Your task to perform on an android device: open app "YouTube Kids" Image 0: 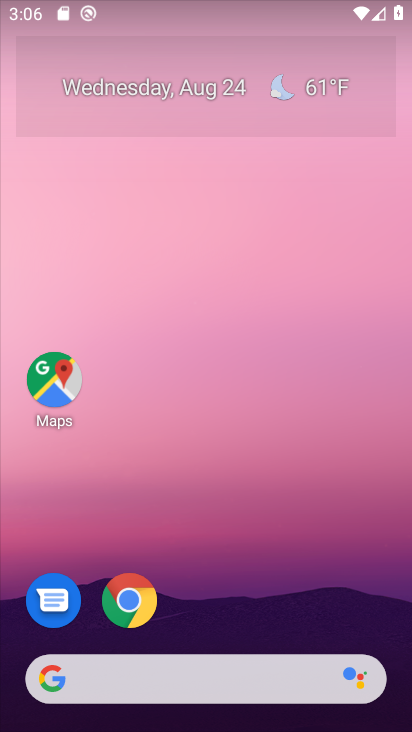
Step 0: click (289, 114)
Your task to perform on an android device: open app "YouTube Kids" Image 1: 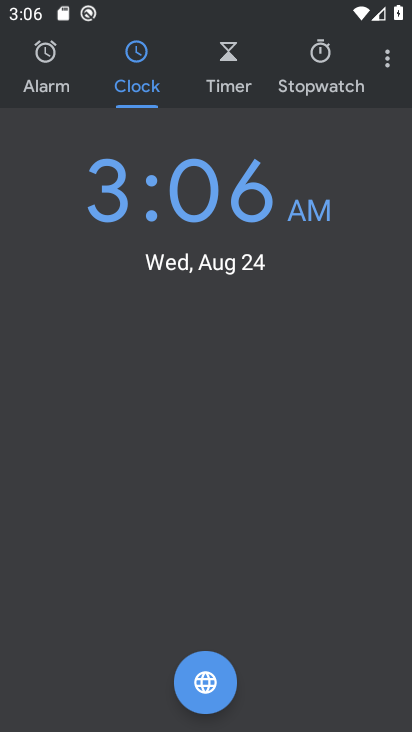
Step 1: press home button
Your task to perform on an android device: open app "YouTube Kids" Image 2: 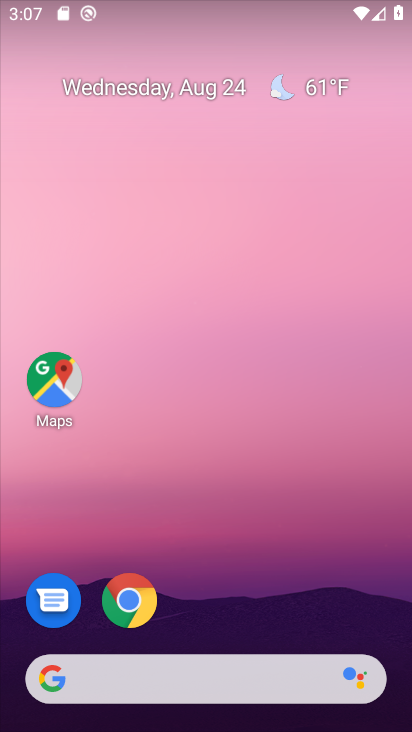
Step 2: drag from (230, 631) to (319, 49)
Your task to perform on an android device: open app "YouTube Kids" Image 3: 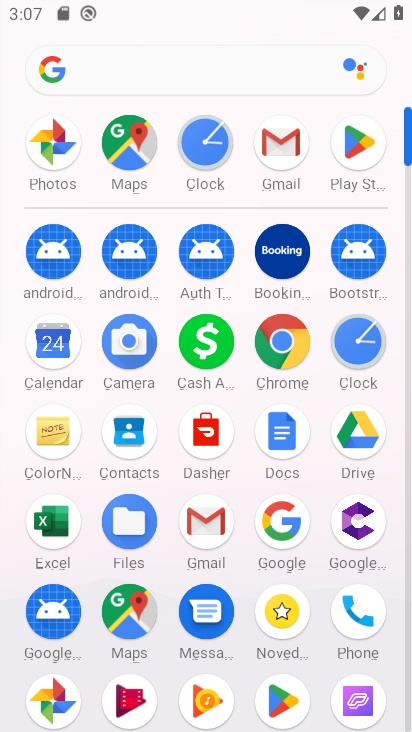
Step 3: click (349, 145)
Your task to perform on an android device: open app "YouTube Kids" Image 4: 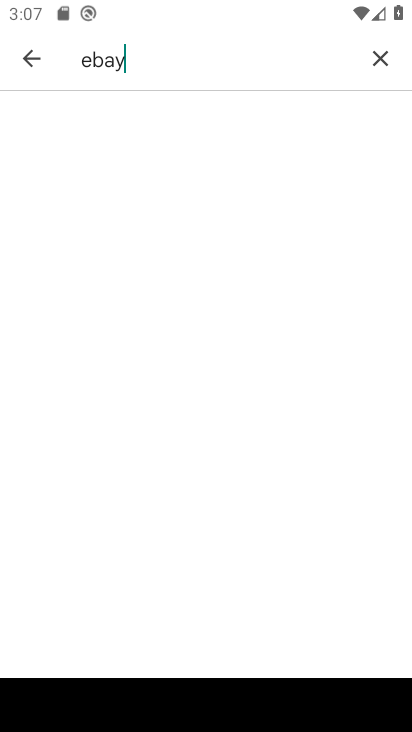
Step 4: click (391, 56)
Your task to perform on an android device: open app "YouTube Kids" Image 5: 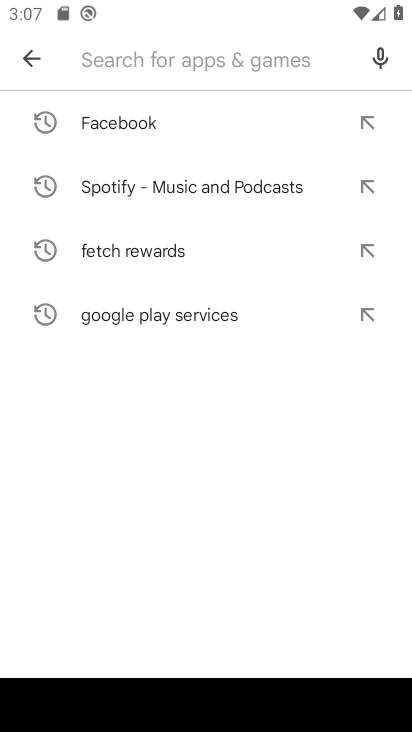
Step 5: click (26, 46)
Your task to perform on an android device: open app "YouTube Kids" Image 6: 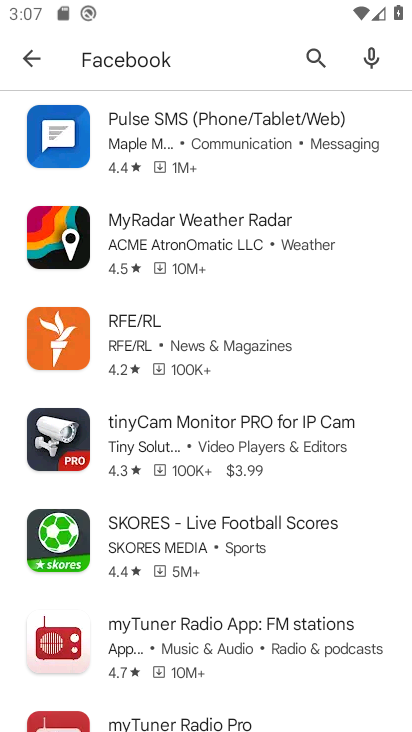
Step 6: click (23, 49)
Your task to perform on an android device: open app "YouTube Kids" Image 7: 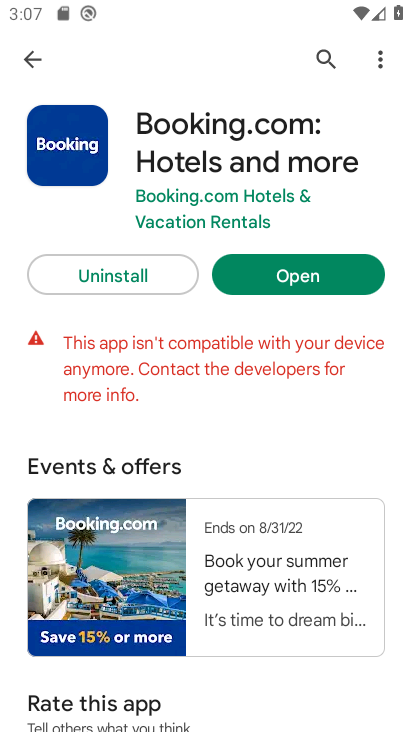
Step 7: click (38, 65)
Your task to perform on an android device: open app "YouTube Kids" Image 8: 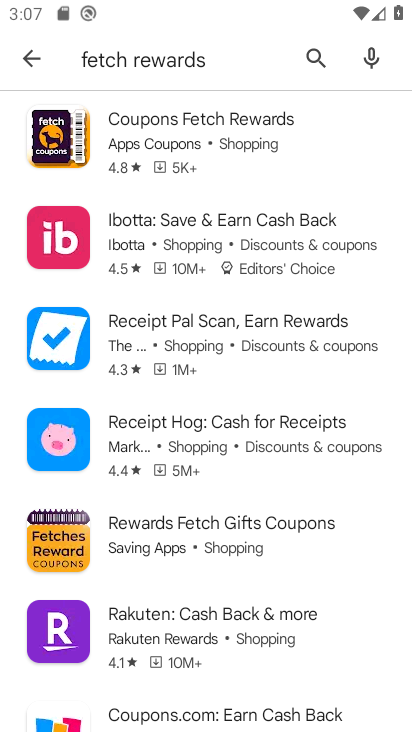
Step 8: click (26, 51)
Your task to perform on an android device: open app "YouTube Kids" Image 9: 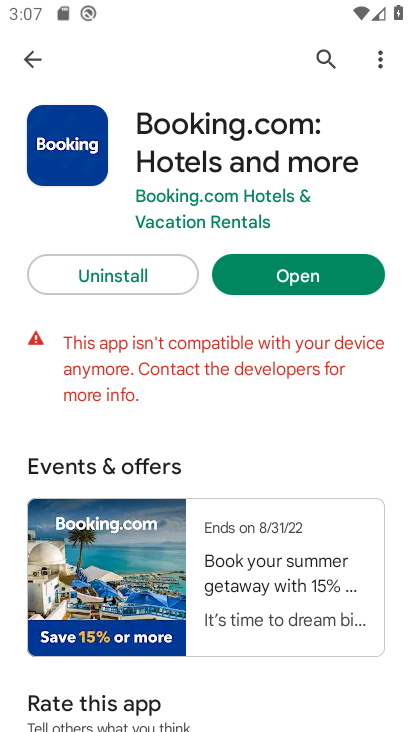
Step 9: click (26, 51)
Your task to perform on an android device: open app "YouTube Kids" Image 10: 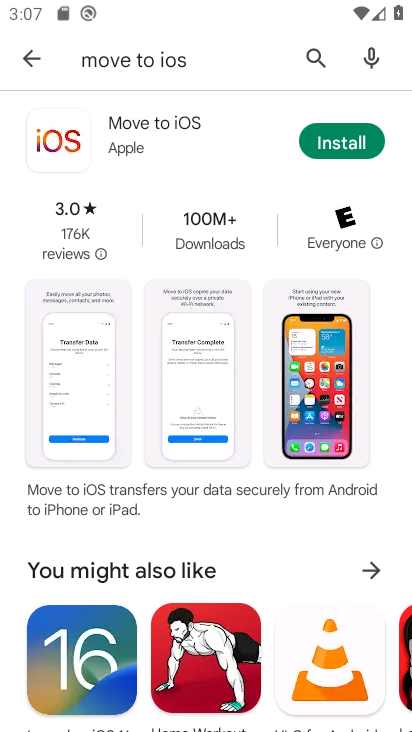
Step 10: click (33, 53)
Your task to perform on an android device: open app "YouTube Kids" Image 11: 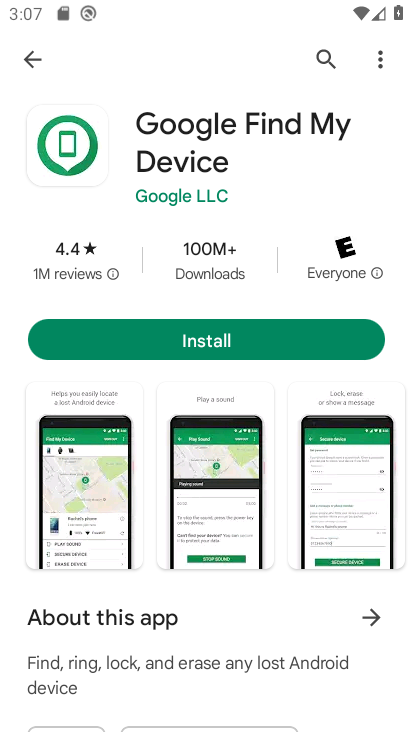
Step 11: click (33, 53)
Your task to perform on an android device: open app "YouTube Kids" Image 12: 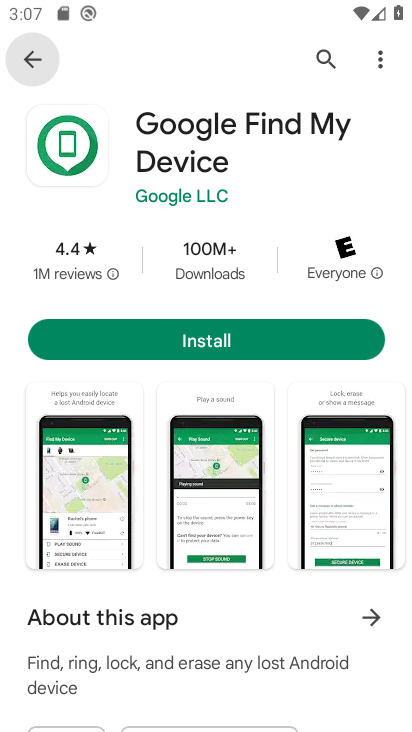
Step 12: click (33, 53)
Your task to perform on an android device: open app "YouTube Kids" Image 13: 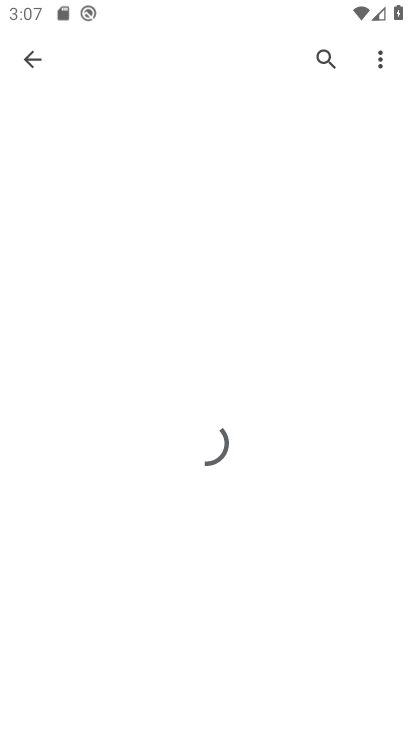
Step 13: click (33, 53)
Your task to perform on an android device: open app "YouTube Kids" Image 14: 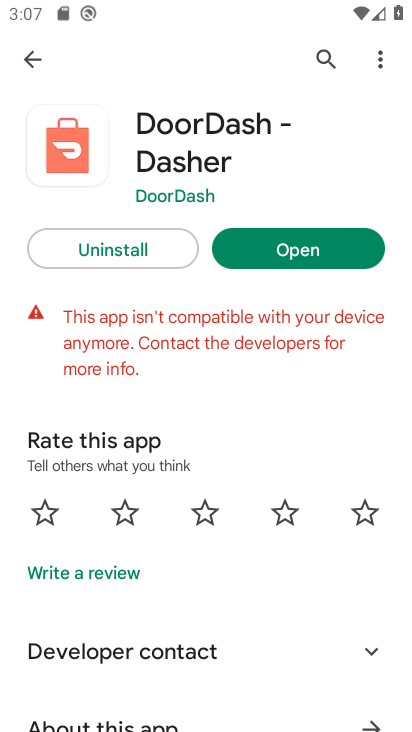
Step 14: click (33, 53)
Your task to perform on an android device: open app "YouTube Kids" Image 15: 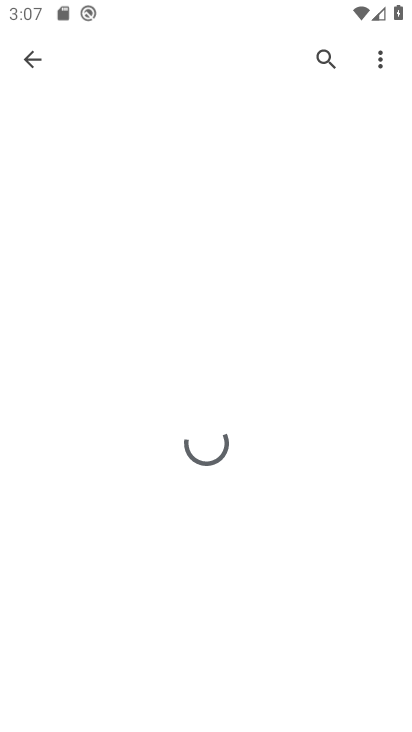
Step 15: click (33, 53)
Your task to perform on an android device: open app "YouTube Kids" Image 16: 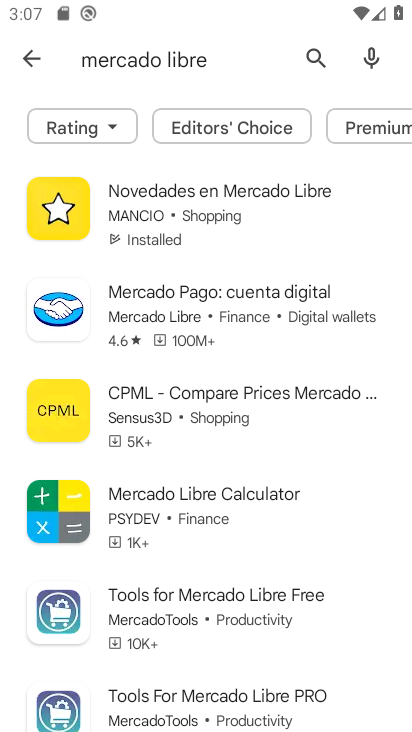
Step 16: click (33, 53)
Your task to perform on an android device: open app "YouTube Kids" Image 17: 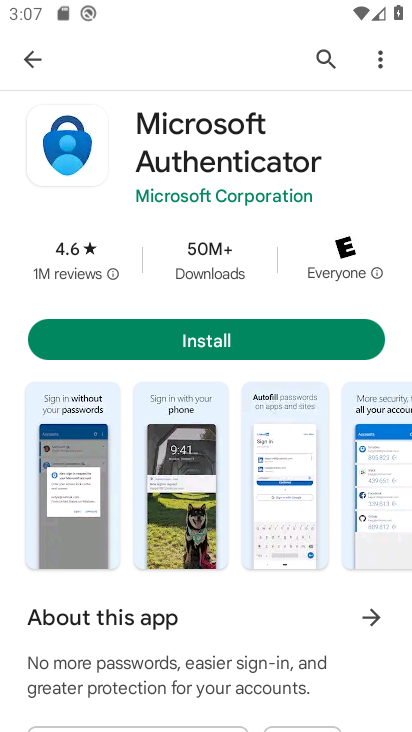
Step 17: click (33, 53)
Your task to perform on an android device: open app "YouTube Kids" Image 18: 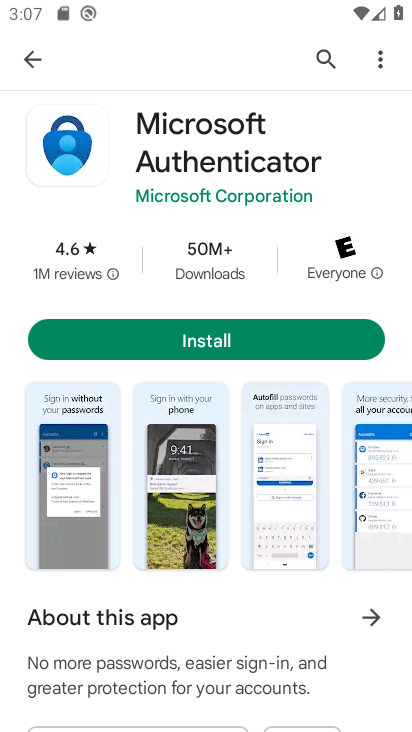
Step 18: click (33, 53)
Your task to perform on an android device: open app "YouTube Kids" Image 19: 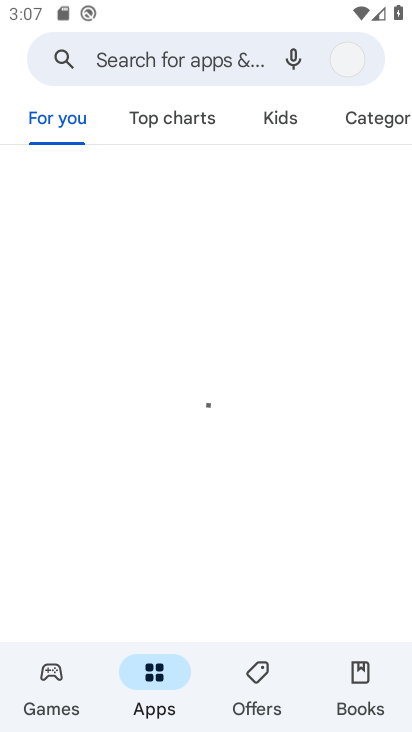
Step 19: click (33, 53)
Your task to perform on an android device: open app "YouTube Kids" Image 20: 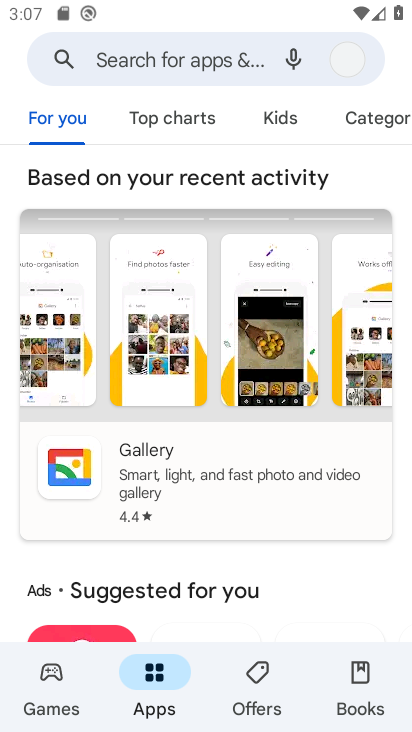
Step 20: click (33, 53)
Your task to perform on an android device: open app "YouTube Kids" Image 21: 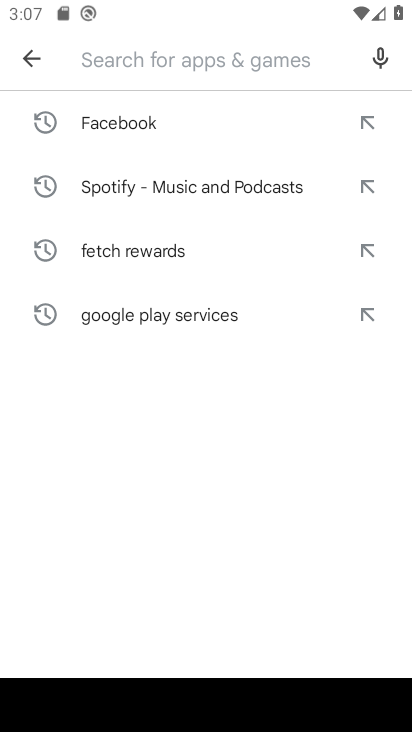
Step 21: click (29, 68)
Your task to perform on an android device: open app "YouTube Kids" Image 22: 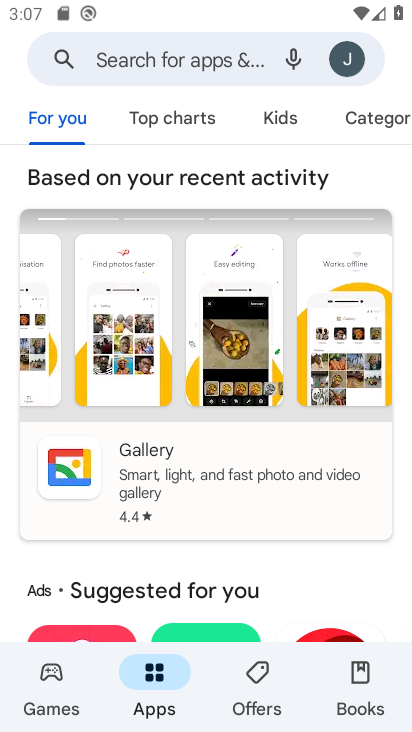
Step 22: click (139, 681)
Your task to perform on an android device: open app "YouTube Kids" Image 23: 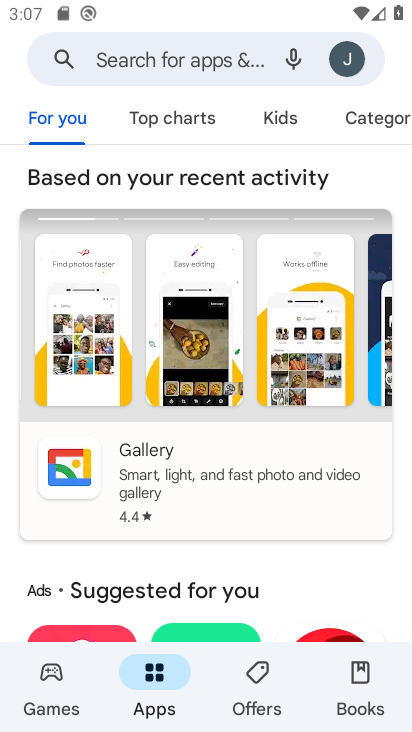
Step 23: click (340, 58)
Your task to perform on an android device: open app "YouTube Kids" Image 24: 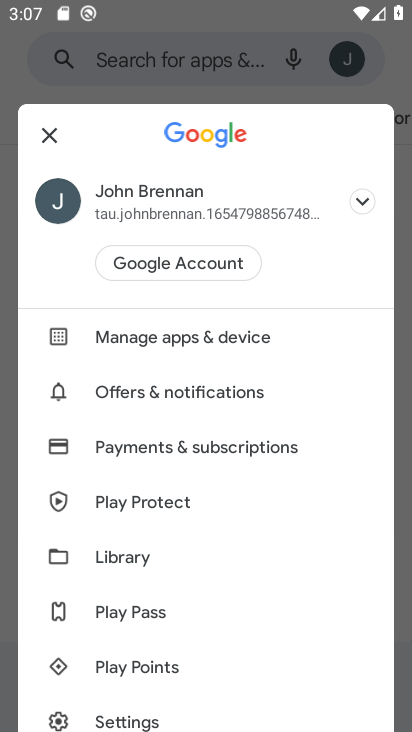
Step 24: click (358, 205)
Your task to perform on an android device: open app "YouTube Kids" Image 25: 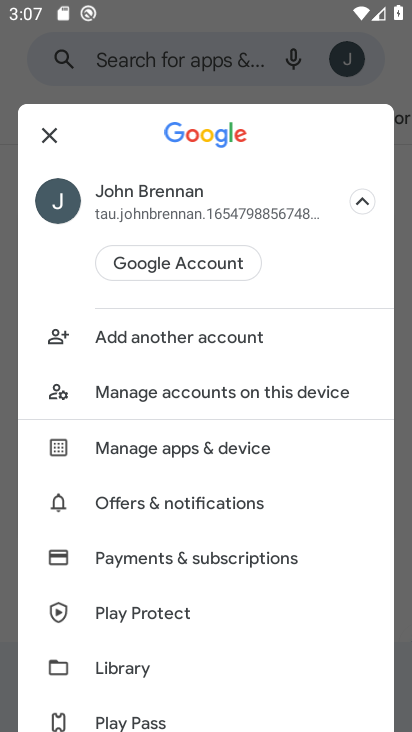
Step 25: click (167, 453)
Your task to perform on an android device: open app "YouTube Kids" Image 26: 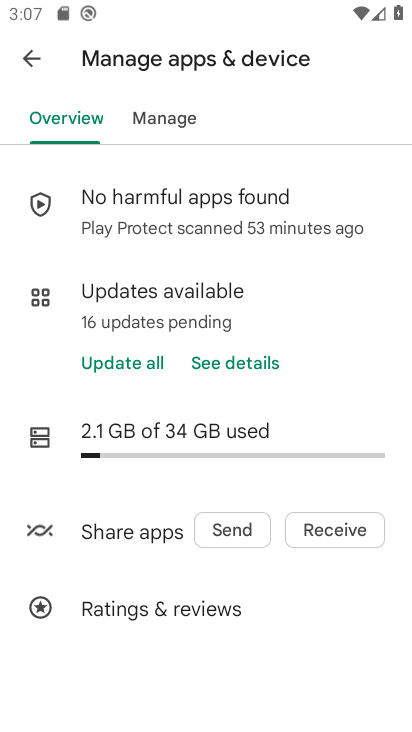
Step 26: click (183, 306)
Your task to perform on an android device: open app "YouTube Kids" Image 27: 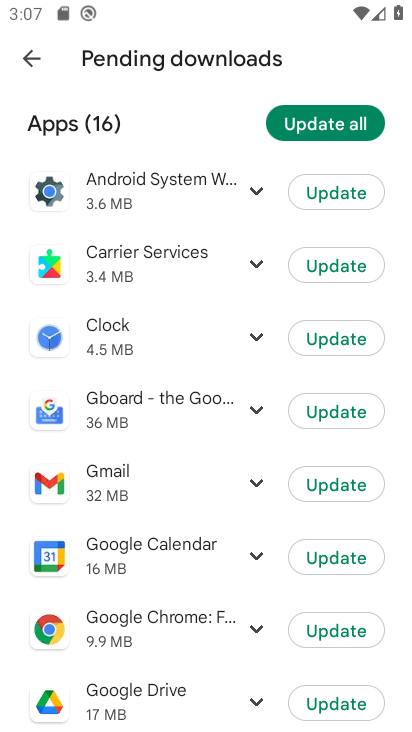
Step 27: click (33, 55)
Your task to perform on an android device: open app "YouTube Kids" Image 28: 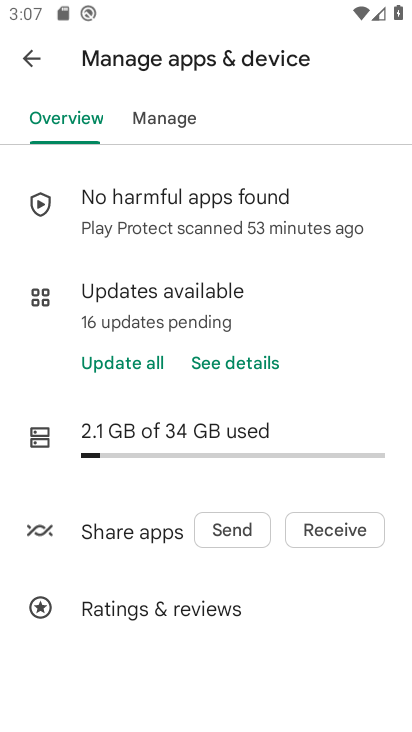
Step 28: click (33, 55)
Your task to perform on an android device: open app "YouTube Kids" Image 29: 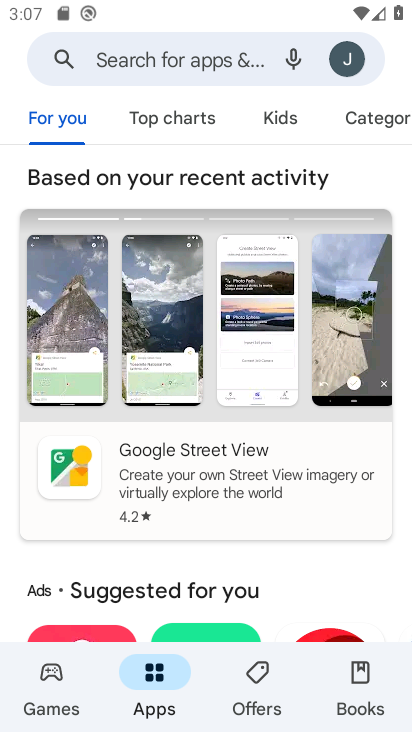
Step 29: click (165, 62)
Your task to perform on an android device: open app "YouTube Kids" Image 30: 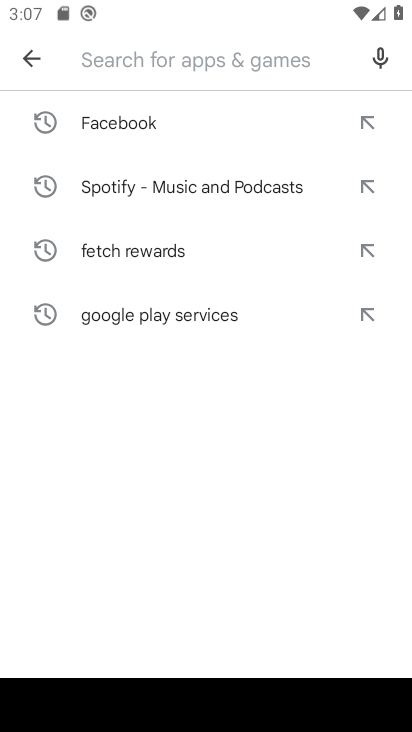
Step 30: click (191, 55)
Your task to perform on an android device: open app "YouTube Kids" Image 31: 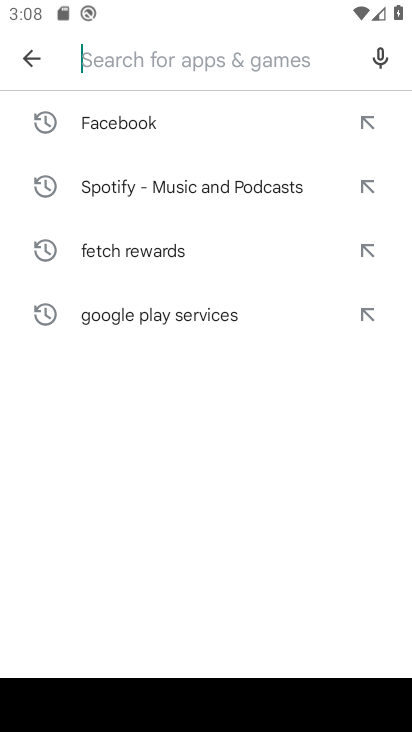
Step 31: type "YouTube Kids"
Your task to perform on an android device: open app "YouTube Kids" Image 32: 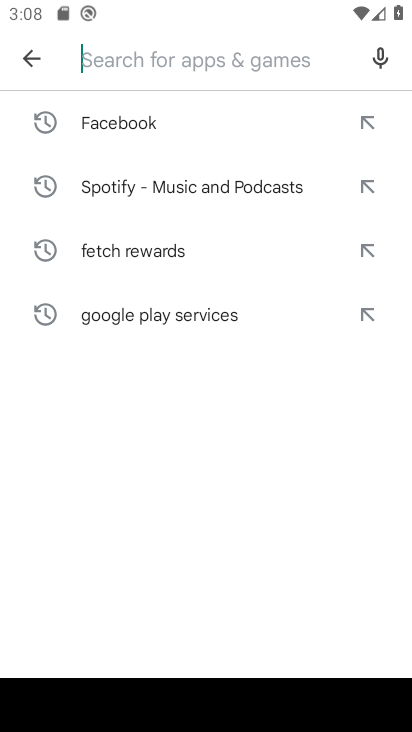
Step 32: click (222, 569)
Your task to perform on an android device: open app "YouTube Kids" Image 33: 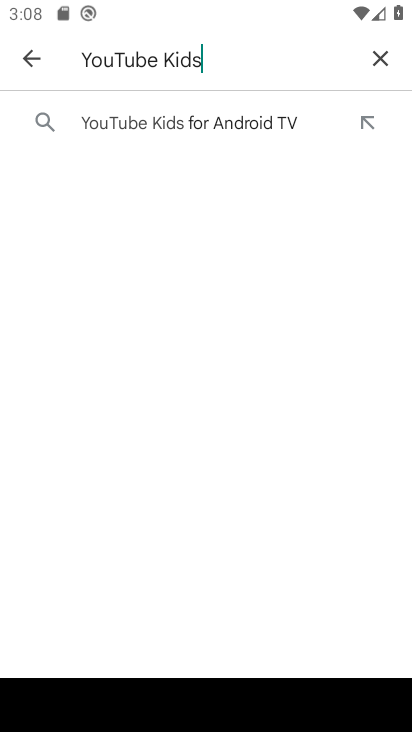
Step 33: click (195, 122)
Your task to perform on an android device: open app "YouTube Kids" Image 34: 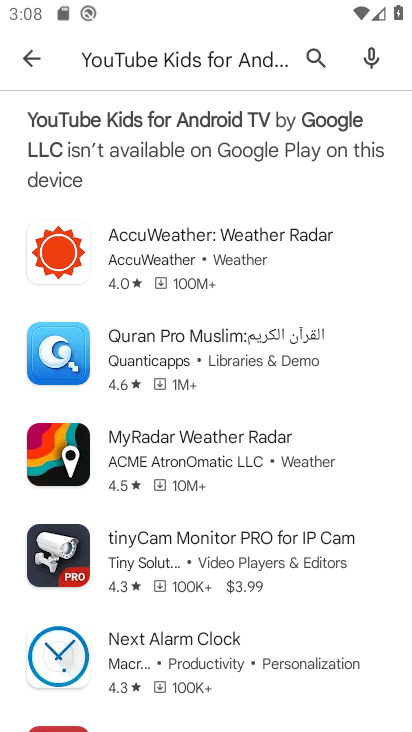
Step 34: task complete